Your task to perform on an android device: Open calendar and show me the third week of next month Image 0: 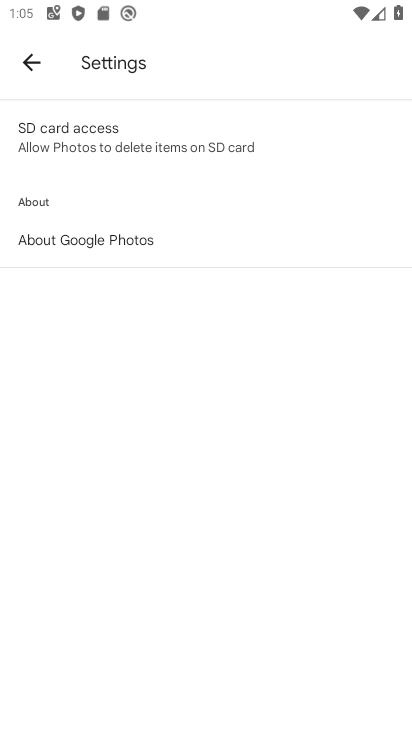
Step 0: press home button
Your task to perform on an android device: Open calendar and show me the third week of next month Image 1: 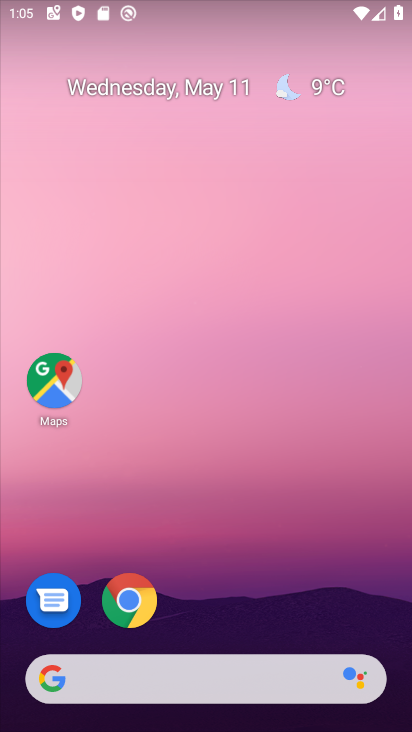
Step 1: drag from (170, 719) to (268, 64)
Your task to perform on an android device: Open calendar and show me the third week of next month Image 2: 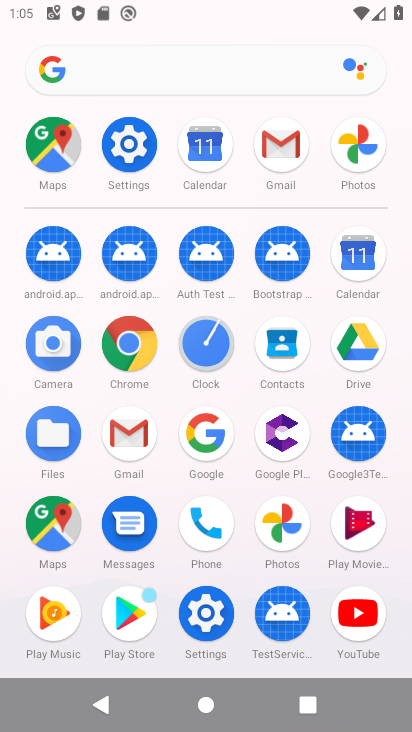
Step 2: click (358, 254)
Your task to perform on an android device: Open calendar and show me the third week of next month Image 3: 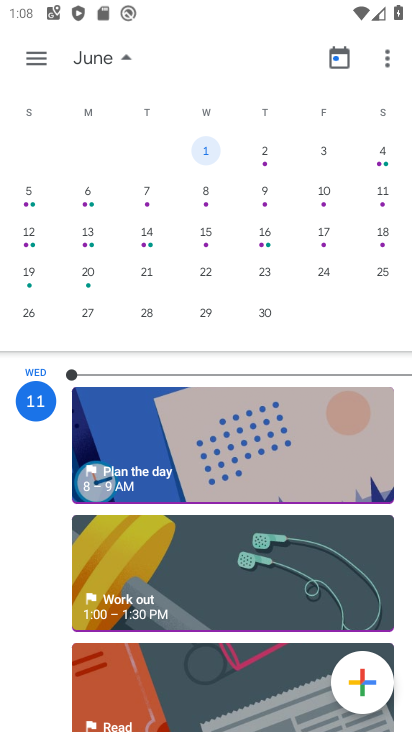
Step 3: click (27, 237)
Your task to perform on an android device: Open calendar and show me the third week of next month Image 4: 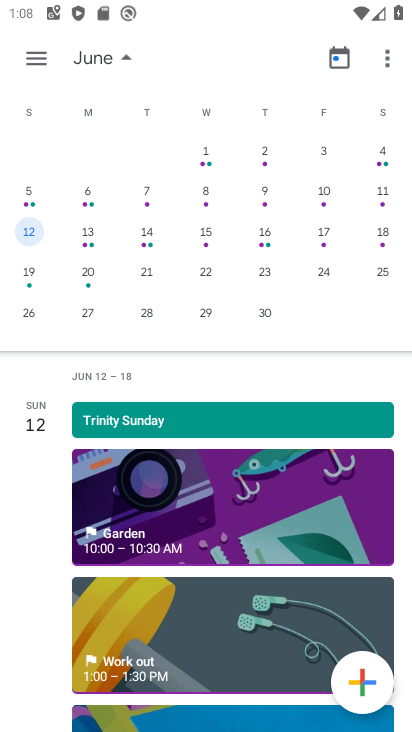
Step 4: task complete